Your task to perform on an android device: turn on showing notifications on the lock screen Image 0: 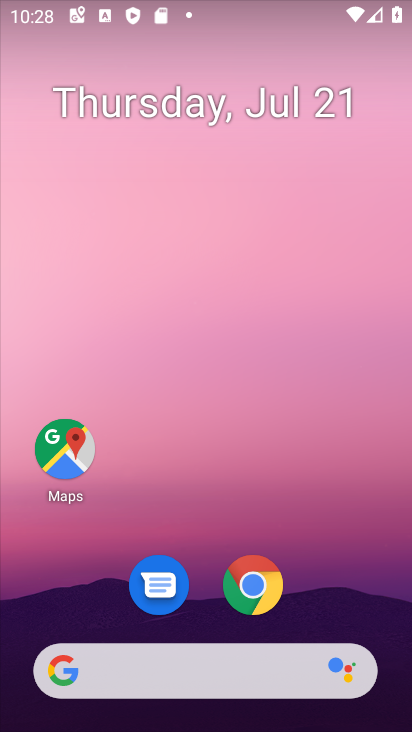
Step 0: drag from (185, 513) to (200, 109)
Your task to perform on an android device: turn on showing notifications on the lock screen Image 1: 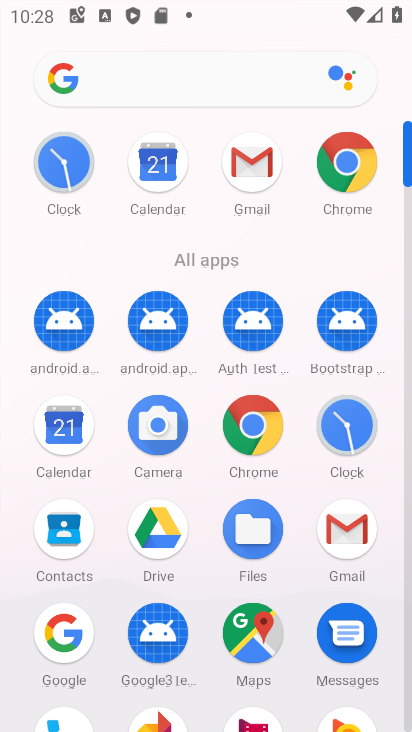
Step 1: drag from (218, 585) to (242, 146)
Your task to perform on an android device: turn on showing notifications on the lock screen Image 2: 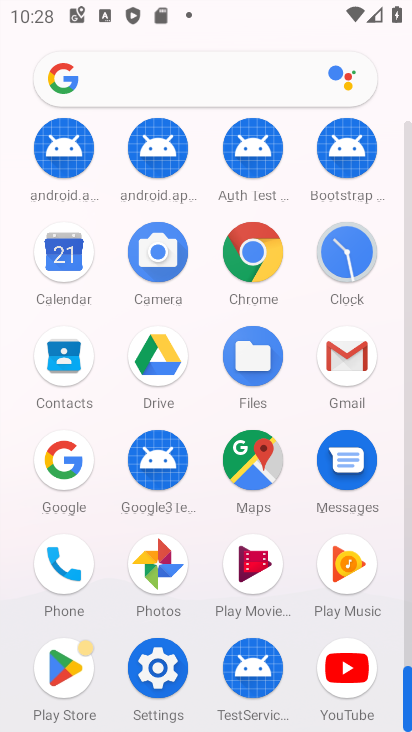
Step 2: click (158, 659)
Your task to perform on an android device: turn on showing notifications on the lock screen Image 3: 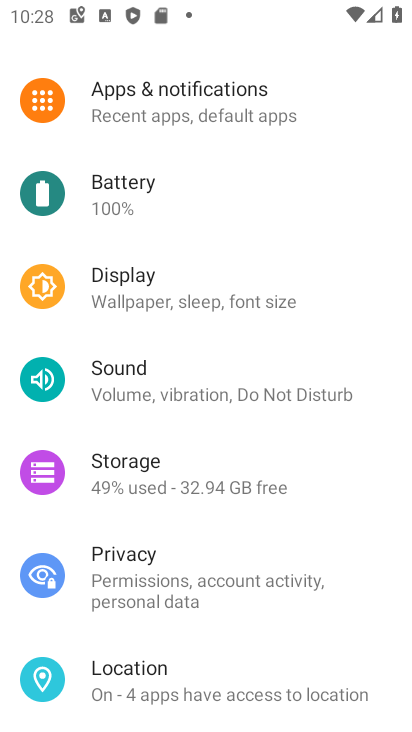
Step 3: click (249, 115)
Your task to perform on an android device: turn on showing notifications on the lock screen Image 4: 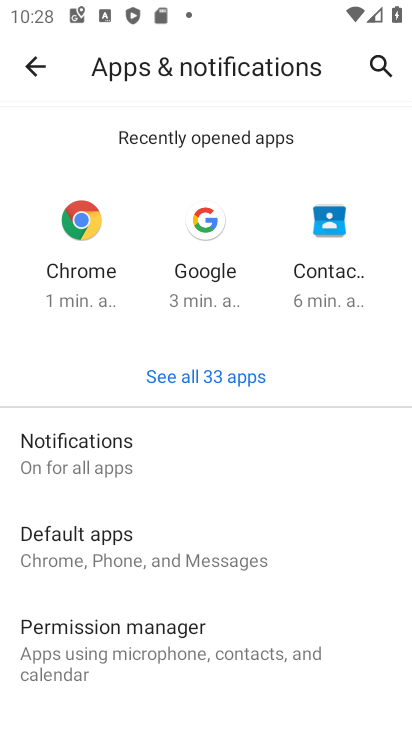
Step 4: click (104, 463)
Your task to perform on an android device: turn on showing notifications on the lock screen Image 5: 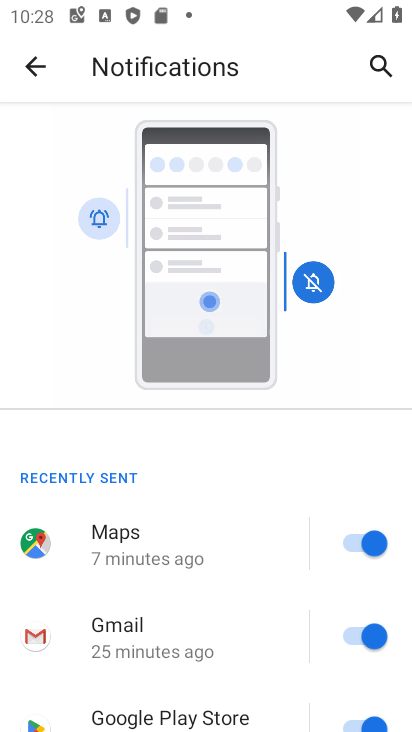
Step 5: drag from (195, 588) to (263, 241)
Your task to perform on an android device: turn on showing notifications on the lock screen Image 6: 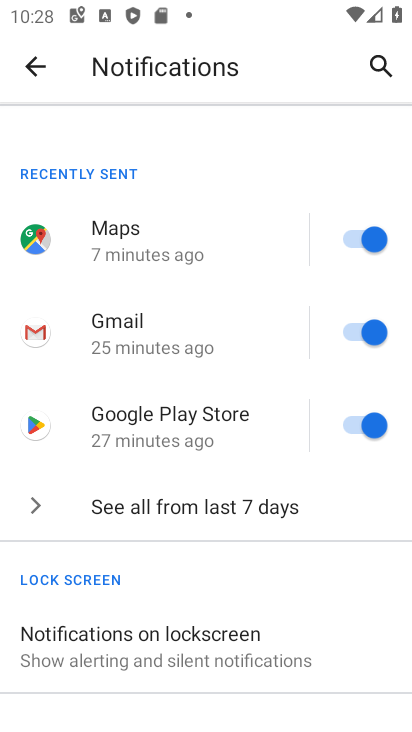
Step 6: click (139, 640)
Your task to perform on an android device: turn on showing notifications on the lock screen Image 7: 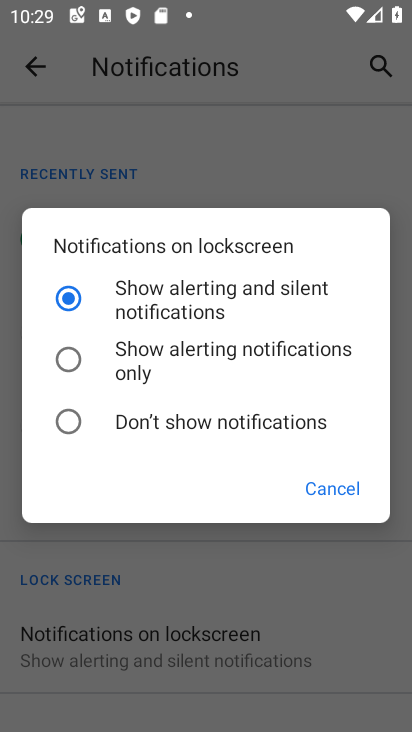
Step 7: click (351, 492)
Your task to perform on an android device: turn on showing notifications on the lock screen Image 8: 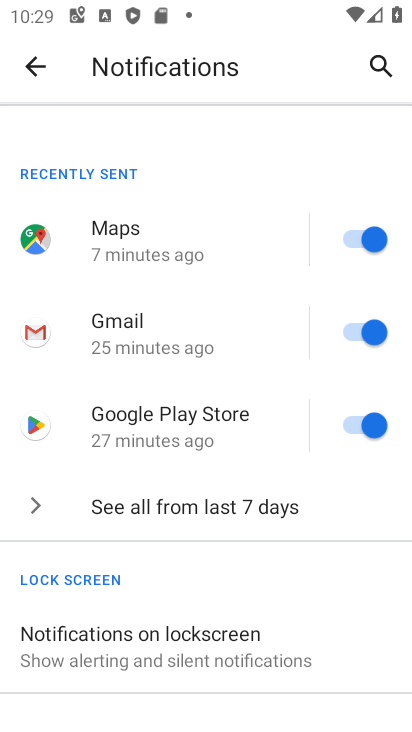
Step 8: task complete